Your task to perform on an android device: turn on sleep mode Image 0: 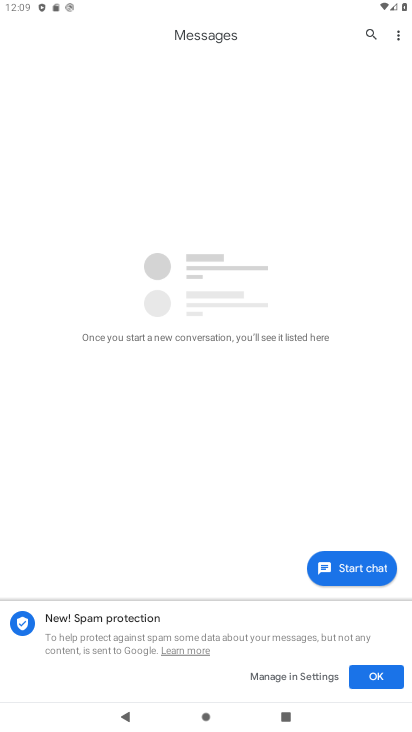
Step 0: press home button
Your task to perform on an android device: turn on sleep mode Image 1: 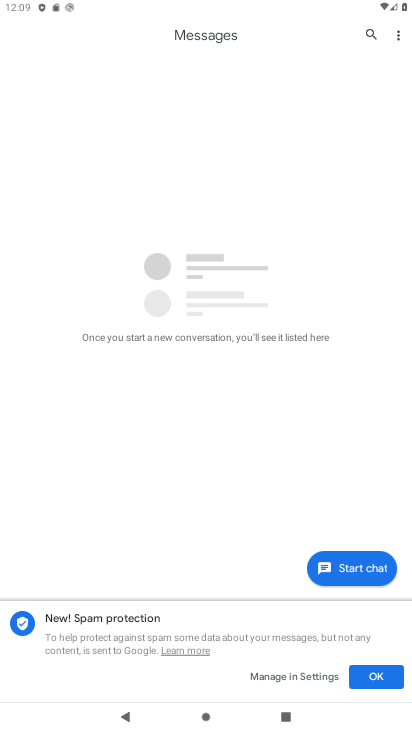
Step 1: press home button
Your task to perform on an android device: turn on sleep mode Image 2: 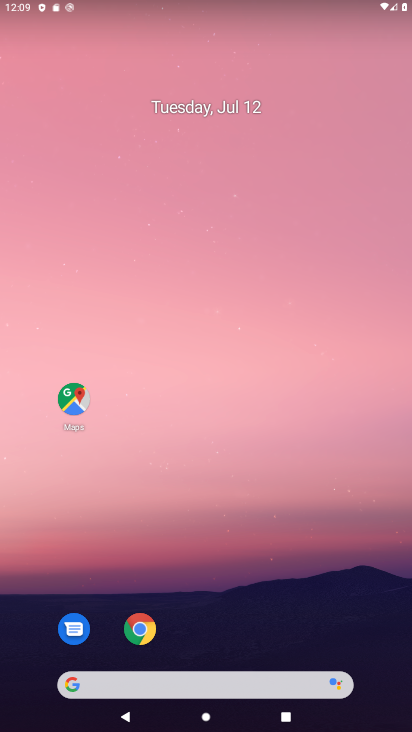
Step 2: drag from (293, 678) to (306, 1)
Your task to perform on an android device: turn on sleep mode Image 3: 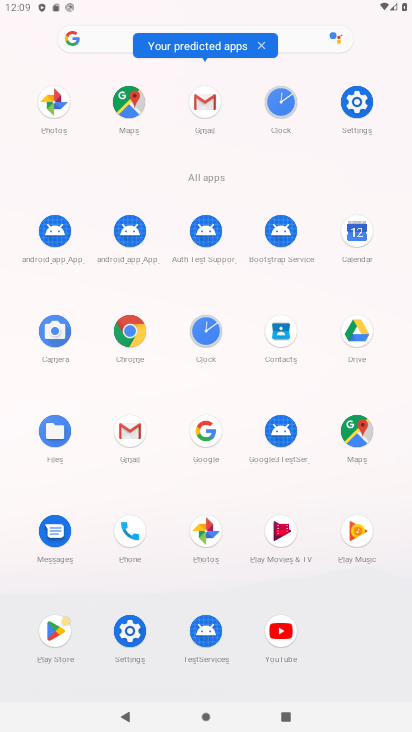
Step 3: click (343, 105)
Your task to perform on an android device: turn on sleep mode Image 4: 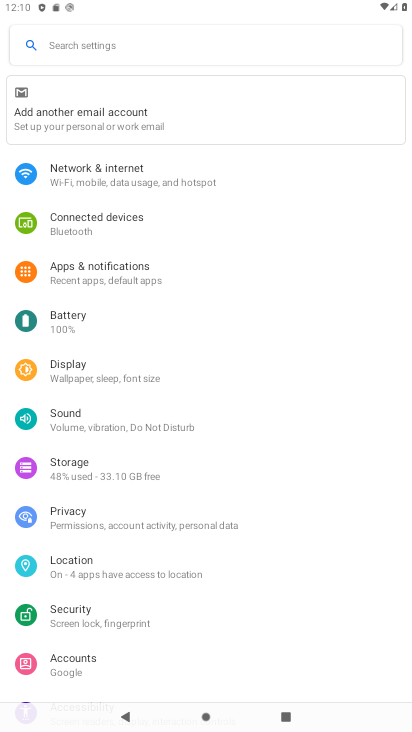
Step 4: click (110, 376)
Your task to perform on an android device: turn on sleep mode Image 5: 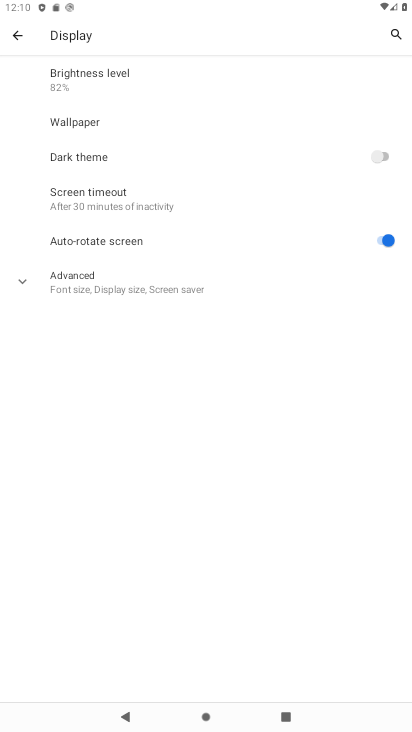
Step 5: task complete